Your task to perform on an android device: change notifications settings Image 0: 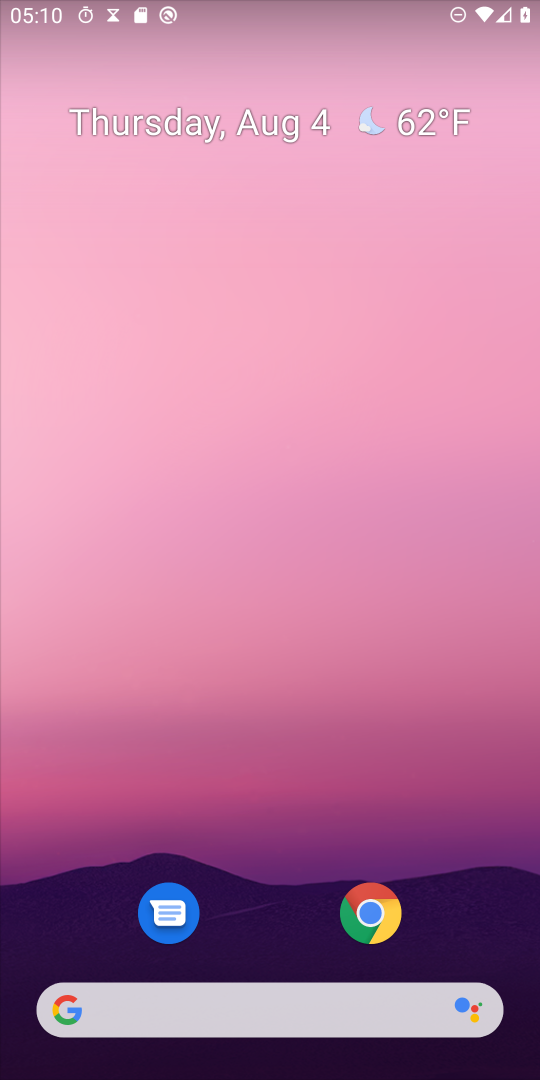
Step 0: drag from (337, 977) to (333, 0)
Your task to perform on an android device: change notifications settings Image 1: 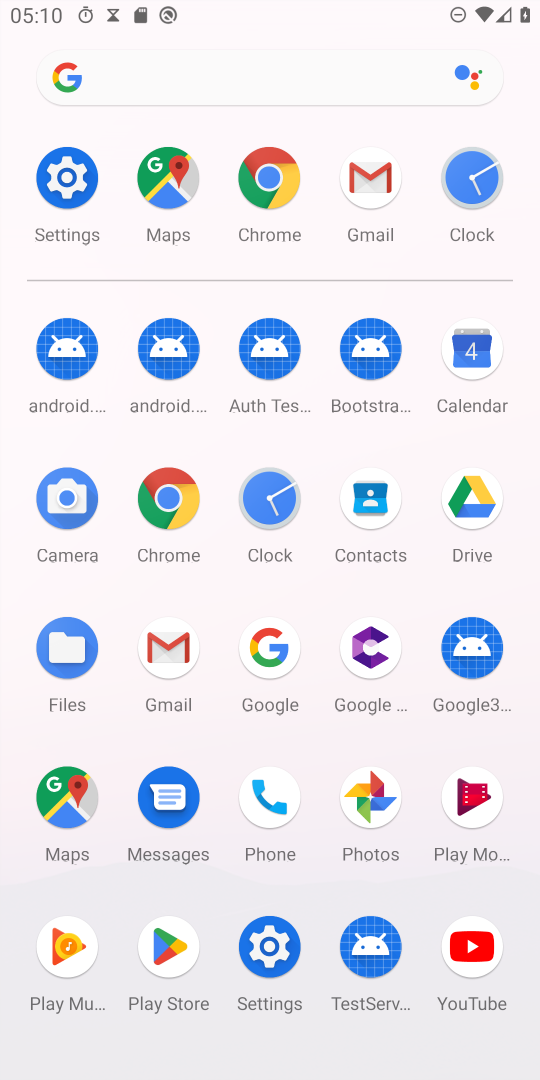
Step 1: click (48, 165)
Your task to perform on an android device: change notifications settings Image 2: 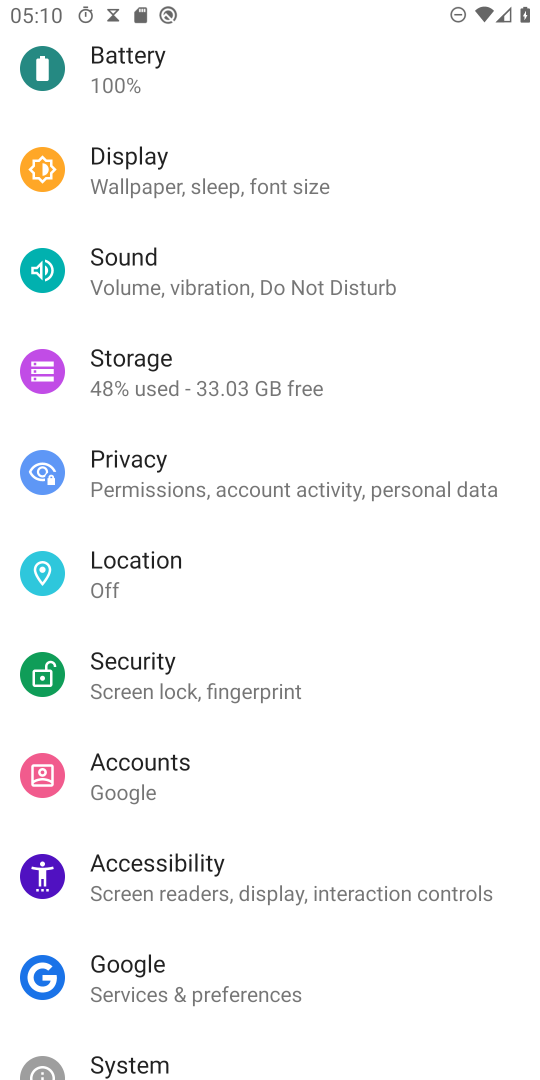
Step 2: click (130, 287)
Your task to perform on an android device: change notifications settings Image 3: 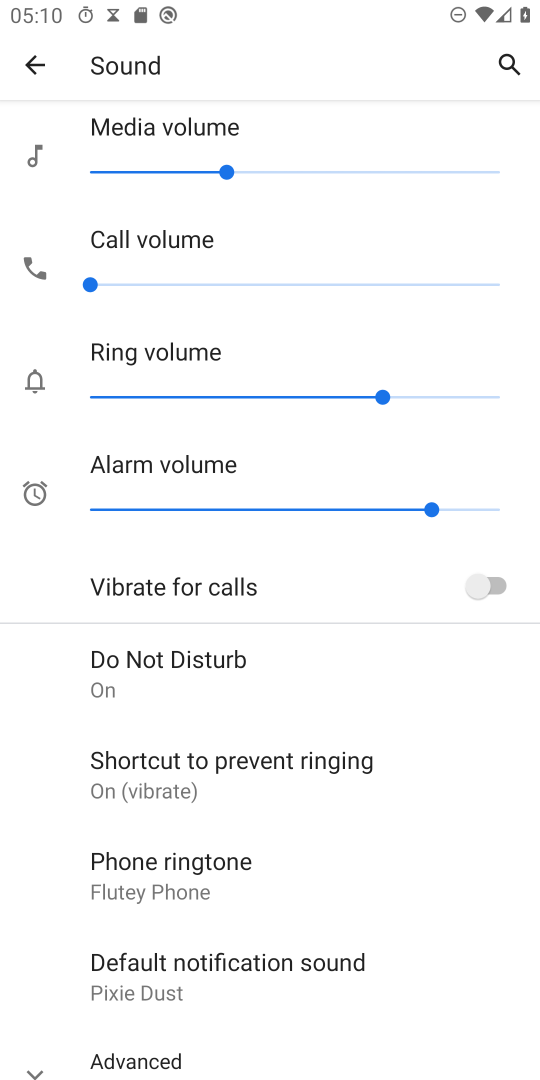
Step 3: press back button
Your task to perform on an android device: change notifications settings Image 4: 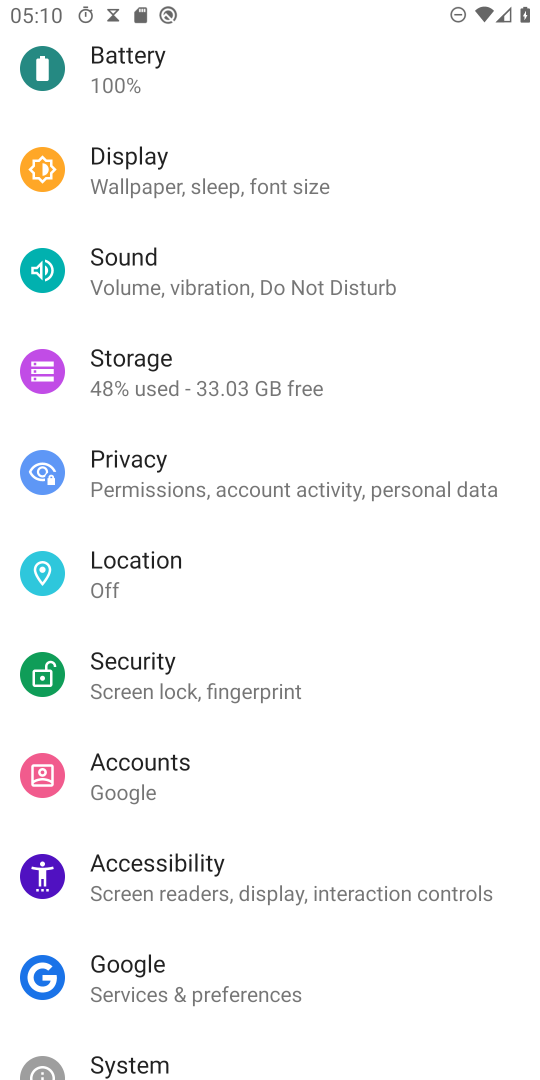
Step 4: drag from (390, 205) to (383, 644)
Your task to perform on an android device: change notifications settings Image 5: 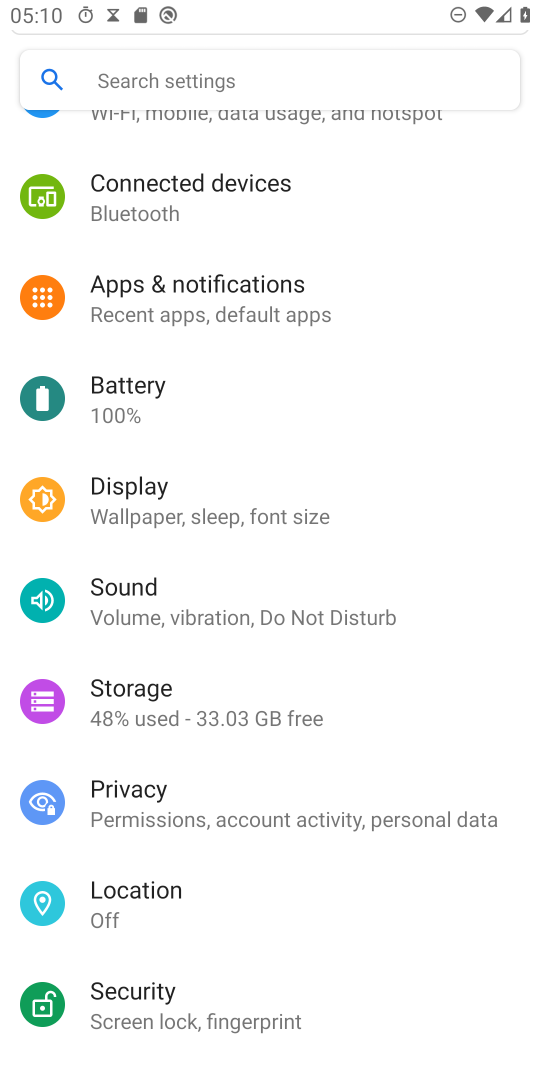
Step 5: click (160, 287)
Your task to perform on an android device: change notifications settings Image 6: 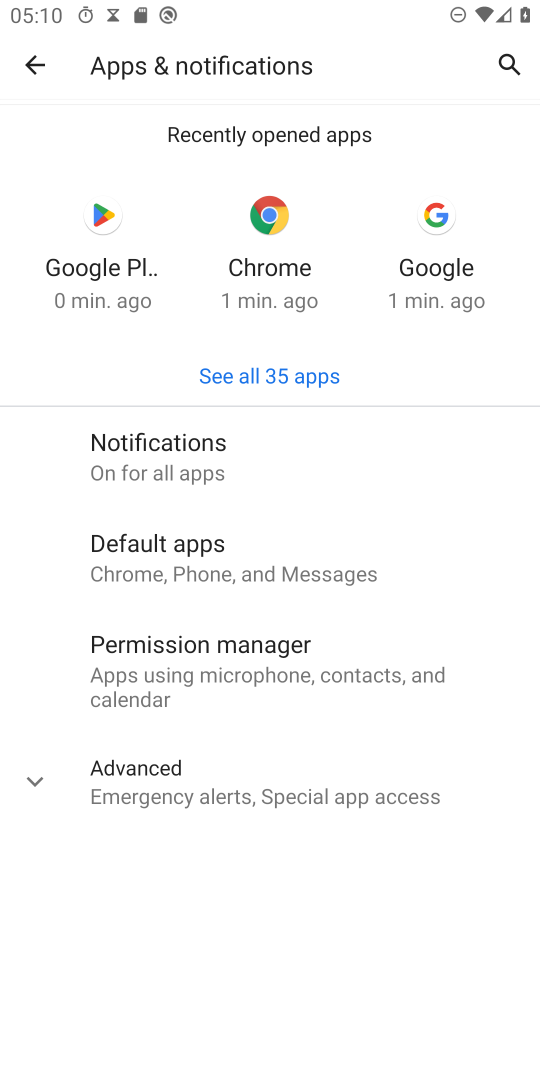
Step 6: click (497, 430)
Your task to perform on an android device: change notifications settings Image 7: 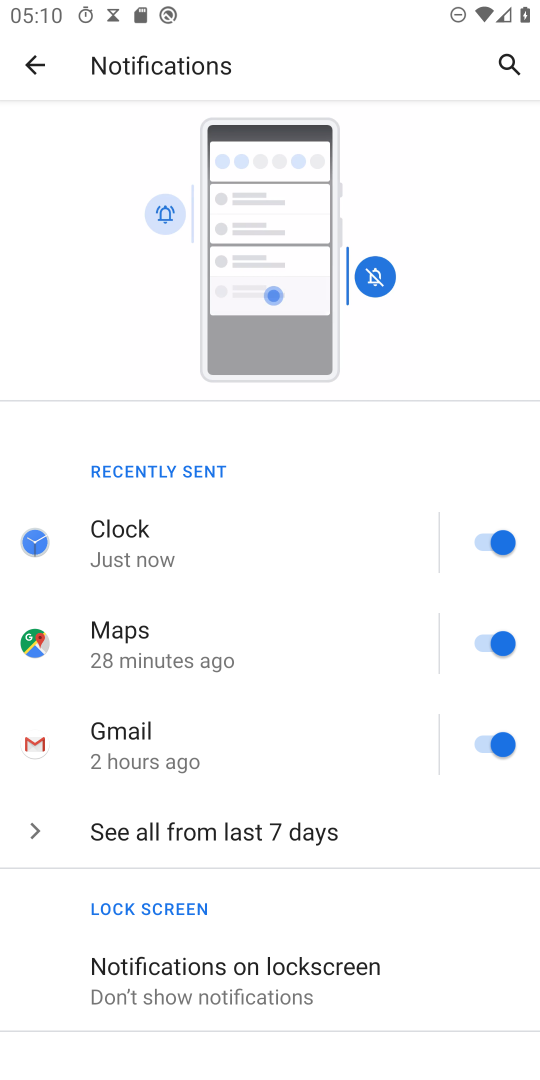
Step 7: click (495, 534)
Your task to perform on an android device: change notifications settings Image 8: 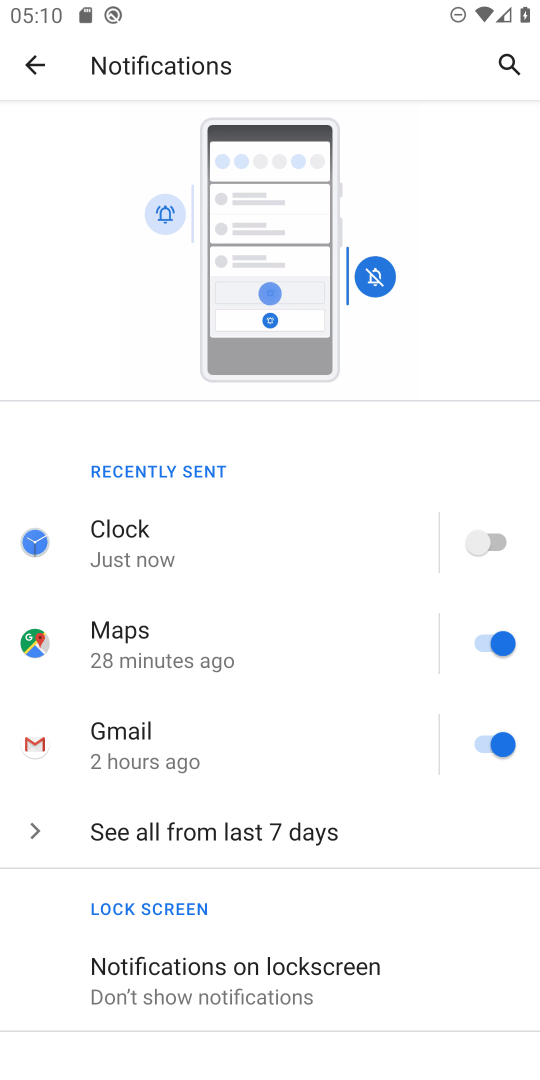
Step 8: task complete